Your task to perform on an android device: change the clock display to digital Image 0: 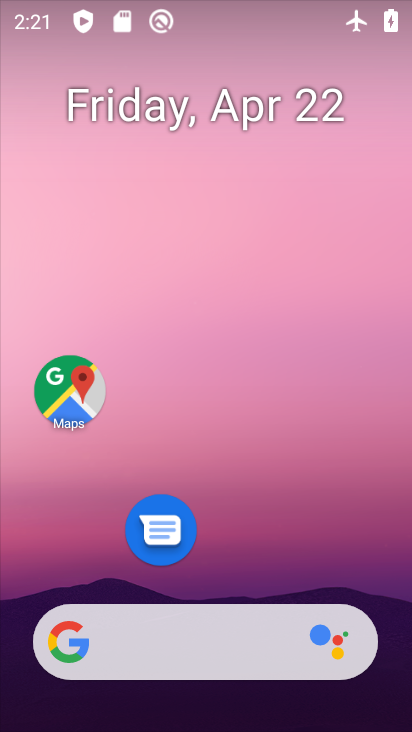
Step 0: drag from (245, 564) to (229, 4)
Your task to perform on an android device: change the clock display to digital Image 1: 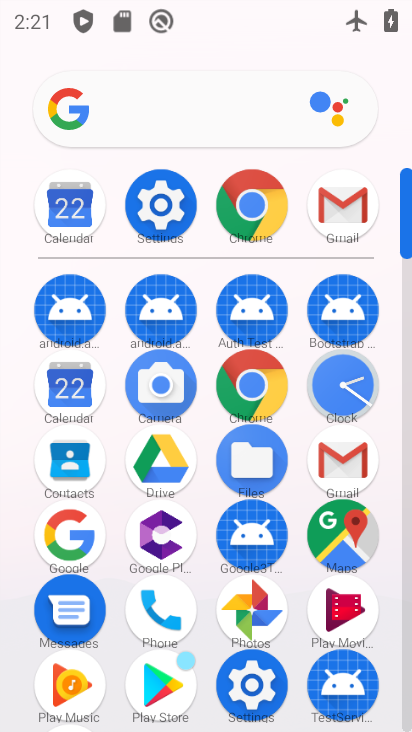
Step 1: click (341, 383)
Your task to perform on an android device: change the clock display to digital Image 2: 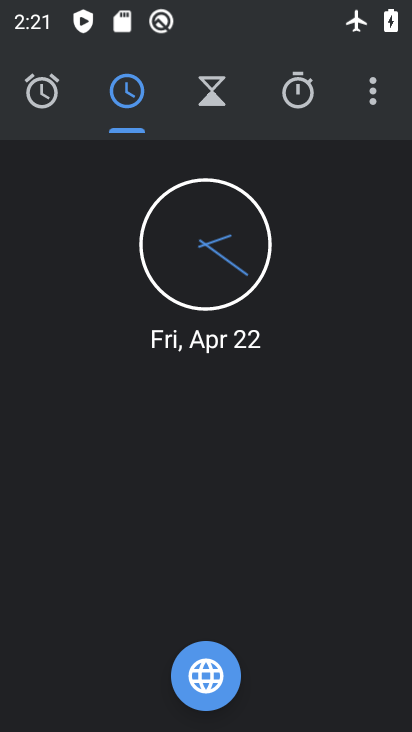
Step 2: click (364, 84)
Your task to perform on an android device: change the clock display to digital Image 3: 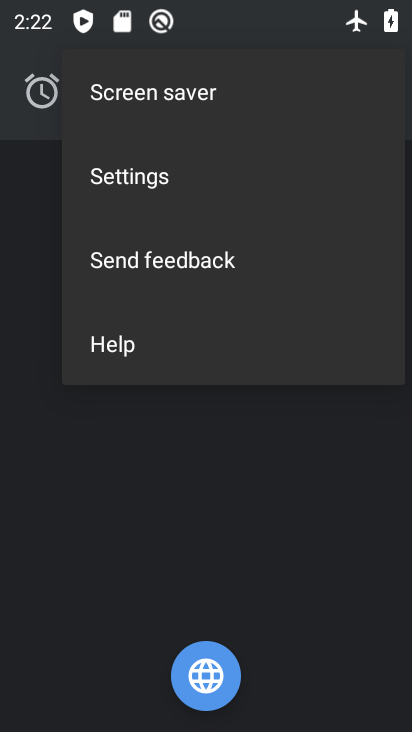
Step 3: click (130, 177)
Your task to perform on an android device: change the clock display to digital Image 4: 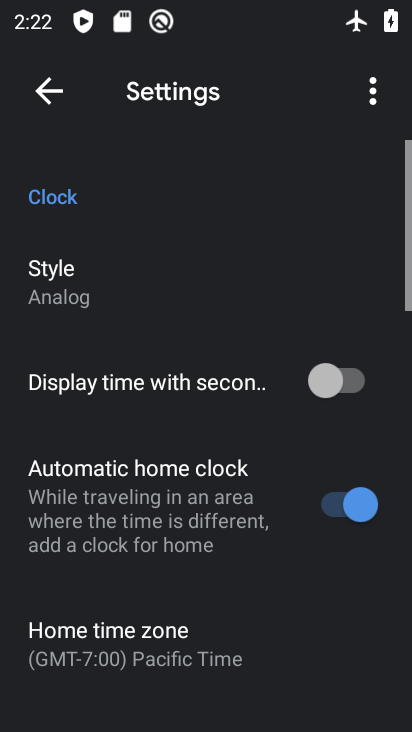
Step 4: click (49, 276)
Your task to perform on an android device: change the clock display to digital Image 5: 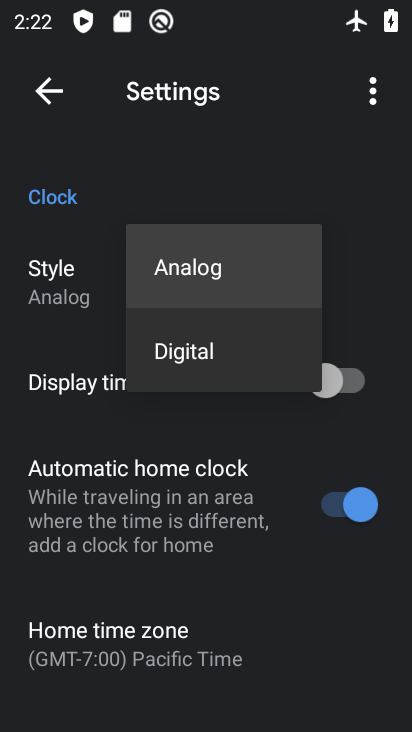
Step 5: click (176, 356)
Your task to perform on an android device: change the clock display to digital Image 6: 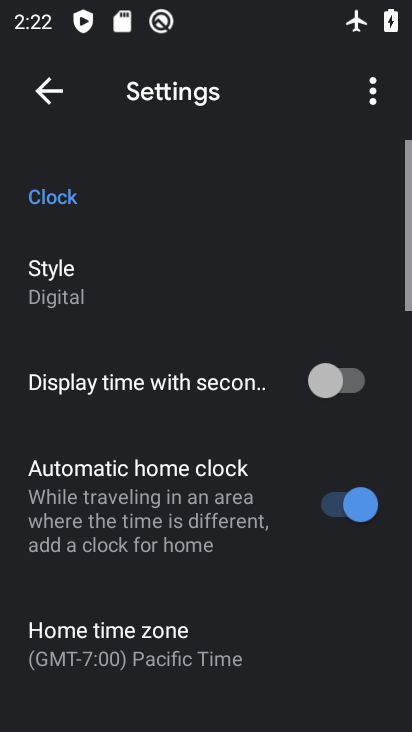
Step 6: task complete